Your task to perform on an android device: change notification settings in the gmail app Image 0: 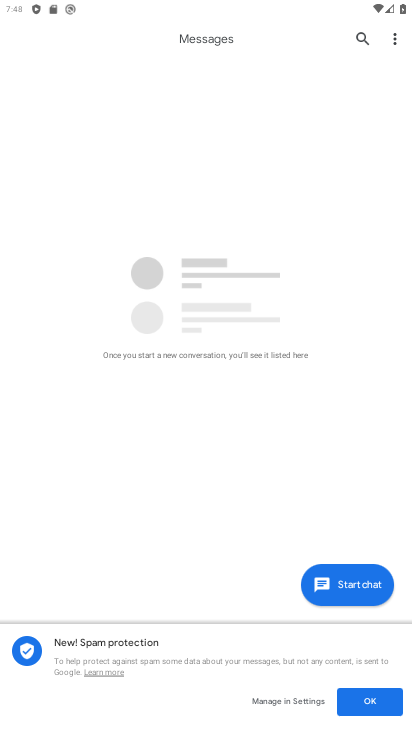
Step 0: press home button
Your task to perform on an android device: change notification settings in the gmail app Image 1: 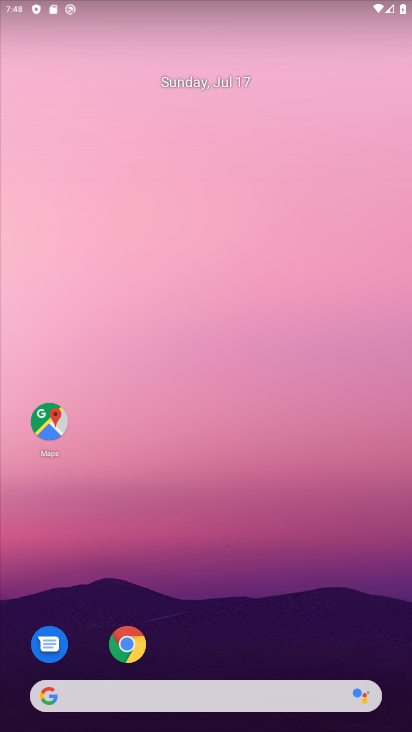
Step 1: drag from (310, 617) to (327, 20)
Your task to perform on an android device: change notification settings in the gmail app Image 2: 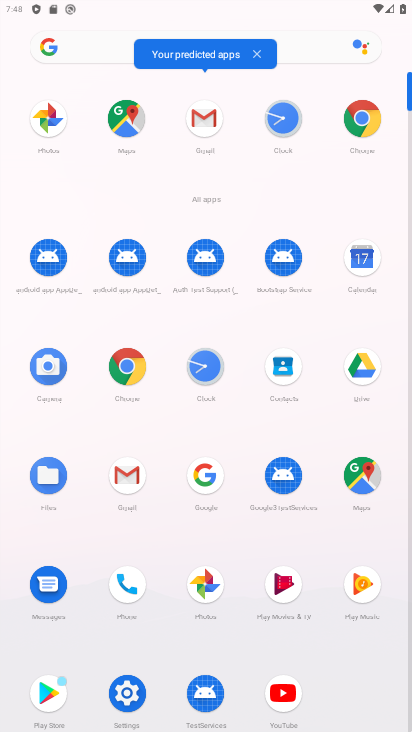
Step 2: click (193, 128)
Your task to perform on an android device: change notification settings in the gmail app Image 3: 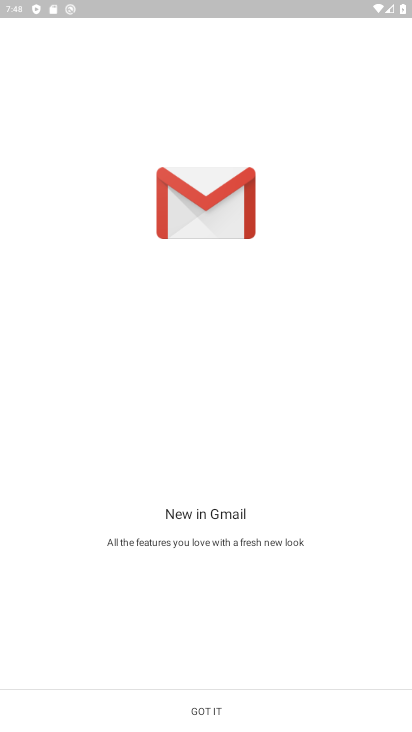
Step 3: click (229, 710)
Your task to perform on an android device: change notification settings in the gmail app Image 4: 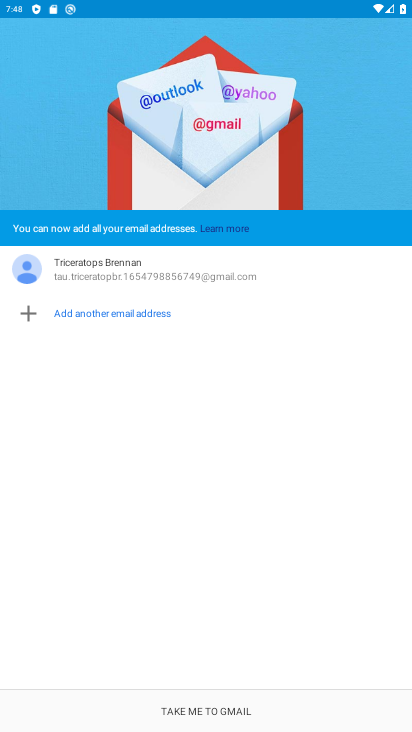
Step 4: click (229, 710)
Your task to perform on an android device: change notification settings in the gmail app Image 5: 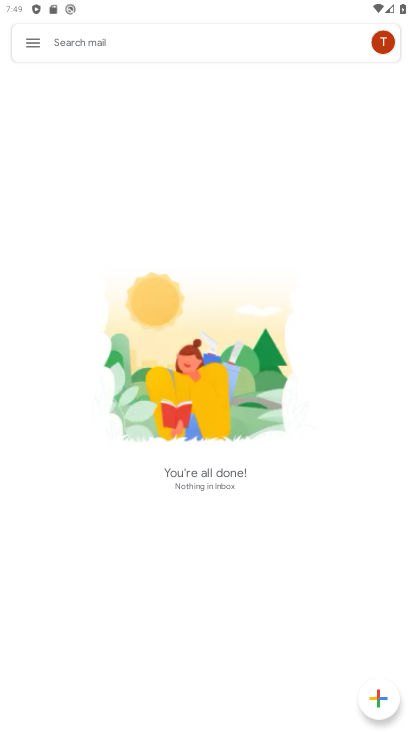
Step 5: click (28, 55)
Your task to perform on an android device: change notification settings in the gmail app Image 6: 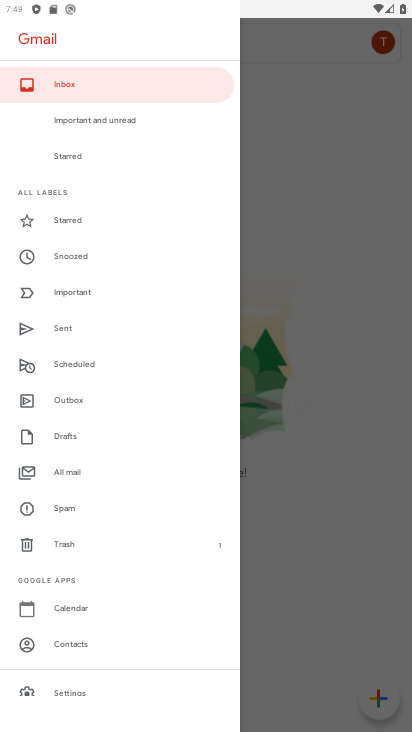
Step 6: click (102, 693)
Your task to perform on an android device: change notification settings in the gmail app Image 7: 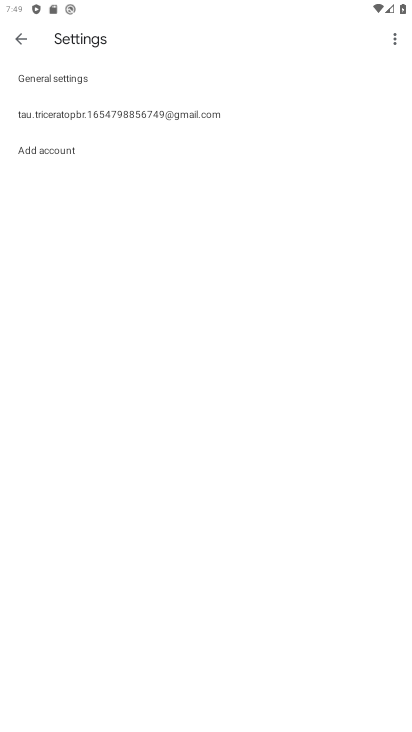
Step 7: click (104, 120)
Your task to perform on an android device: change notification settings in the gmail app Image 8: 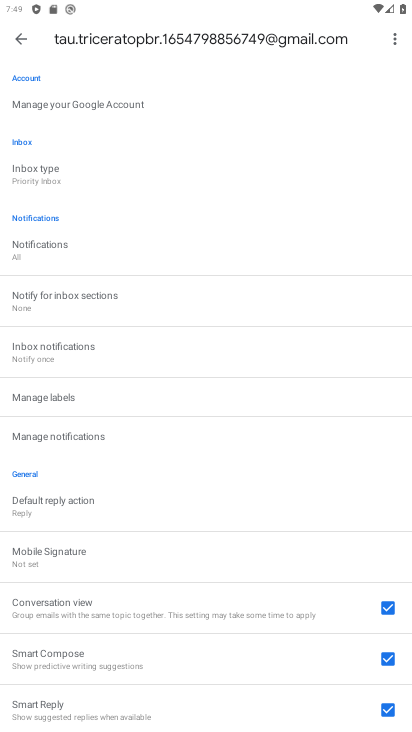
Step 8: click (28, 429)
Your task to perform on an android device: change notification settings in the gmail app Image 9: 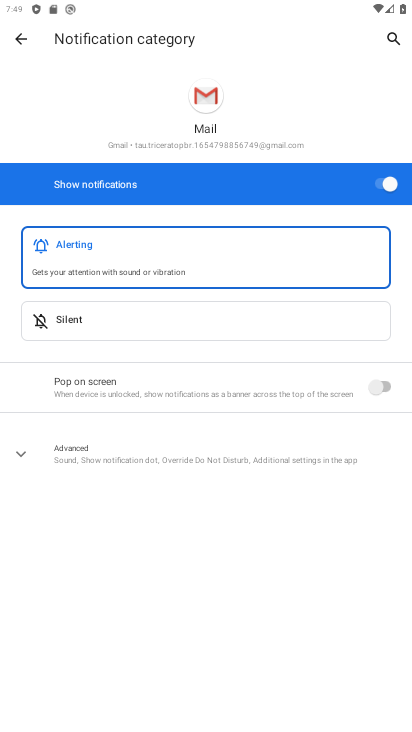
Step 9: click (393, 186)
Your task to perform on an android device: change notification settings in the gmail app Image 10: 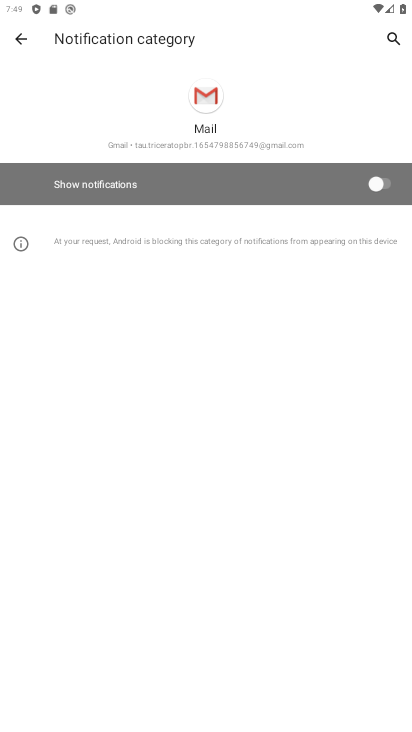
Step 10: task complete